Your task to perform on an android device: Go to Amazon Image 0: 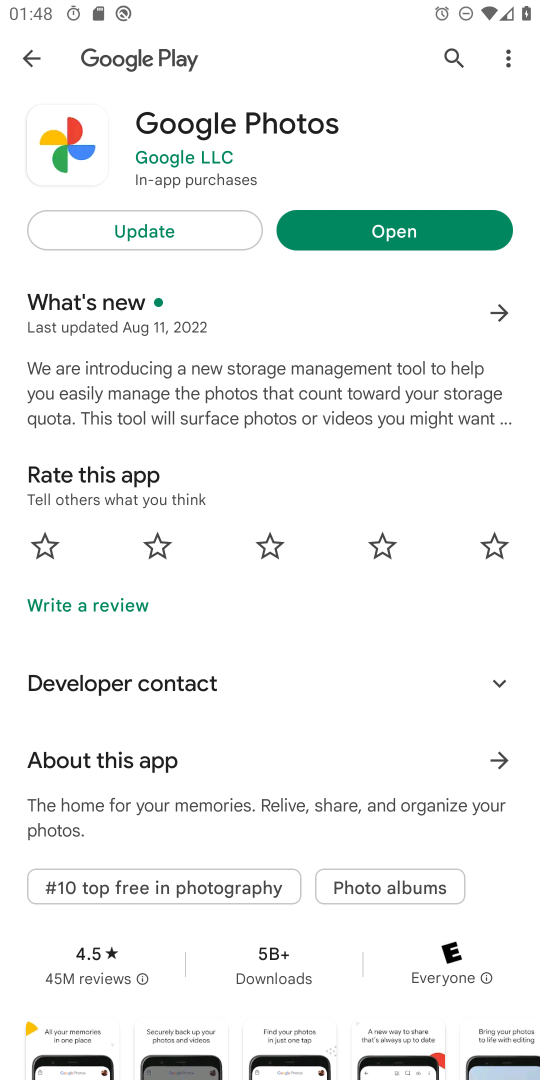
Step 0: press home button
Your task to perform on an android device: Go to Amazon Image 1: 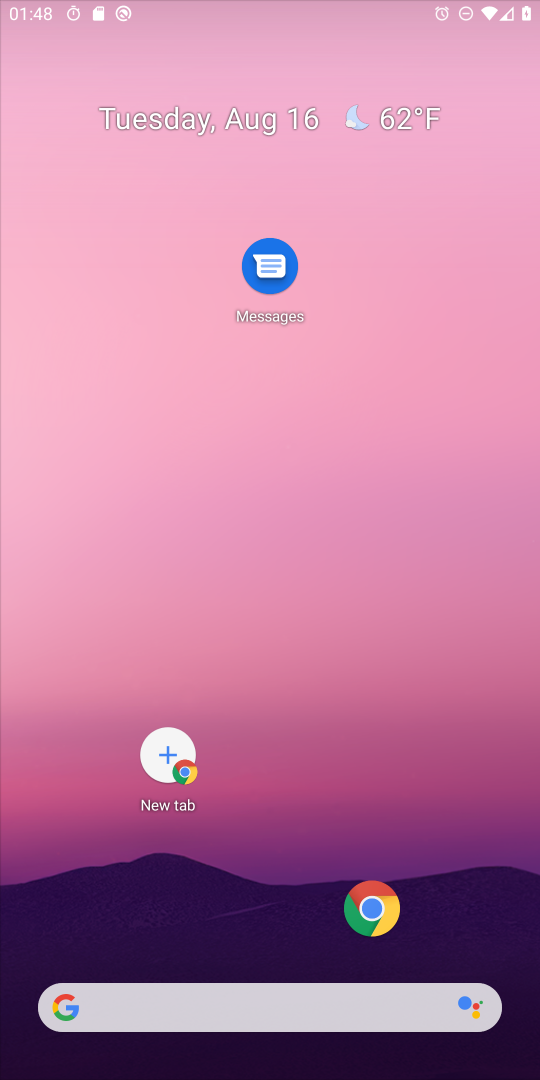
Step 1: click (160, 754)
Your task to perform on an android device: Go to Amazon Image 2: 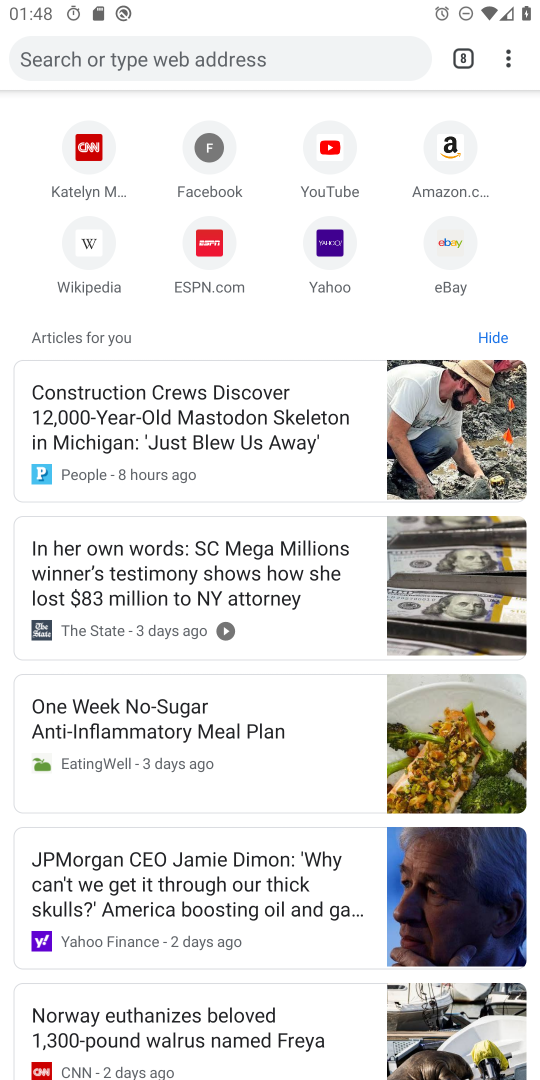
Step 2: click (456, 150)
Your task to perform on an android device: Go to Amazon Image 3: 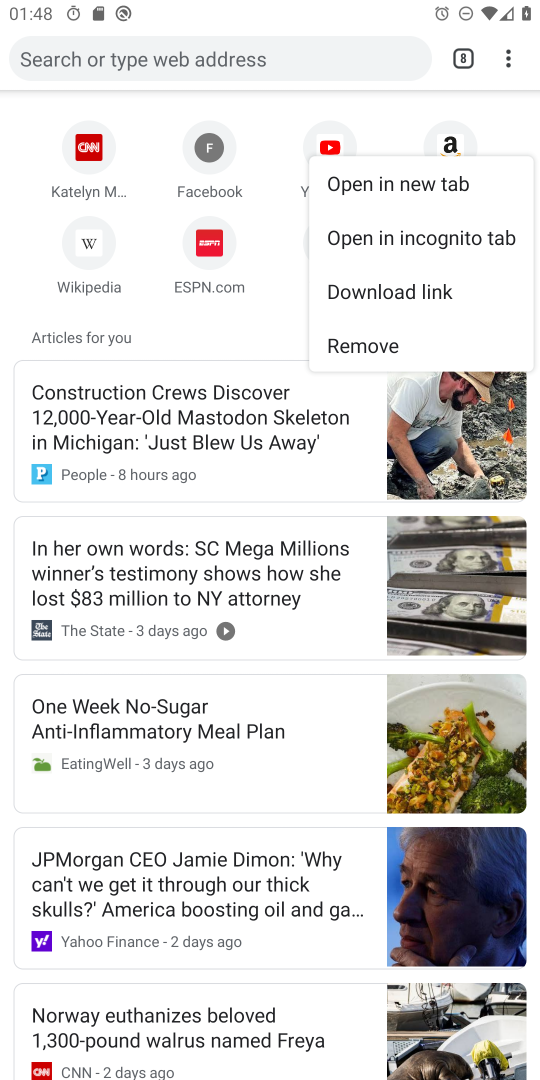
Step 3: click (440, 147)
Your task to perform on an android device: Go to Amazon Image 4: 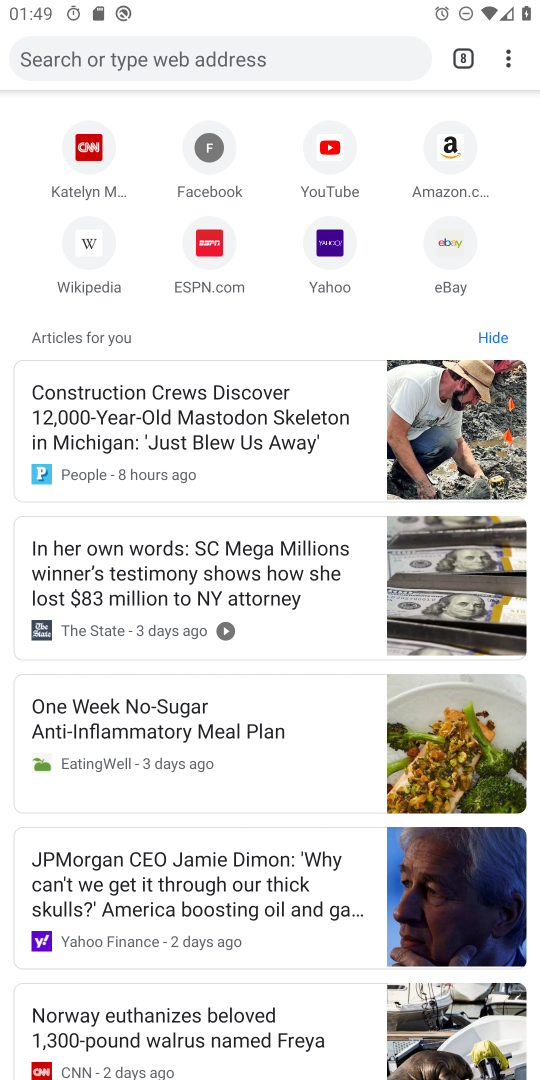
Step 4: click (440, 147)
Your task to perform on an android device: Go to Amazon Image 5: 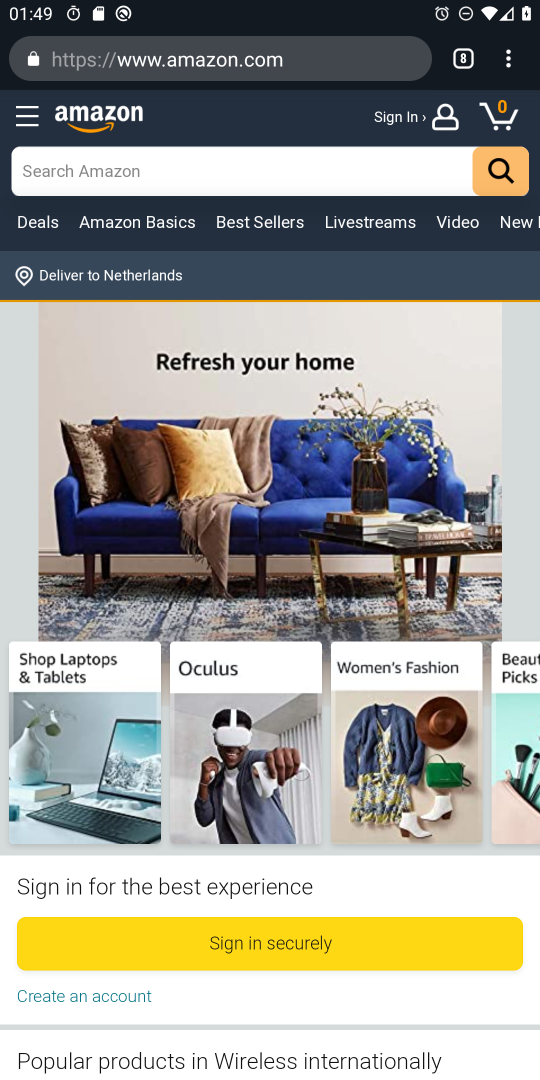
Step 5: task complete